Your task to perform on an android device: toggle airplane mode Image 0: 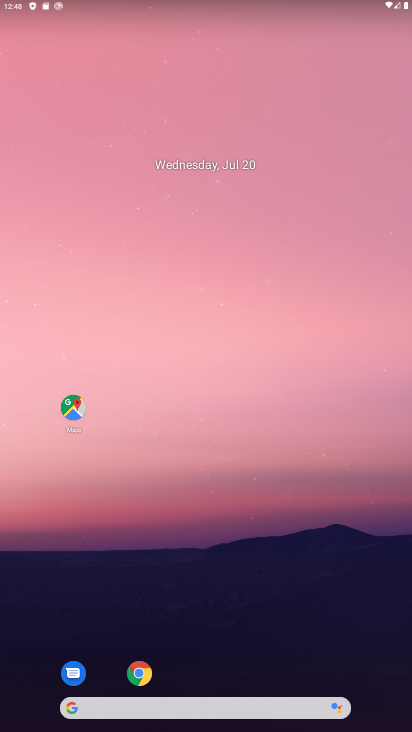
Step 0: drag from (180, 3) to (212, 553)
Your task to perform on an android device: toggle airplane mode Image 1: 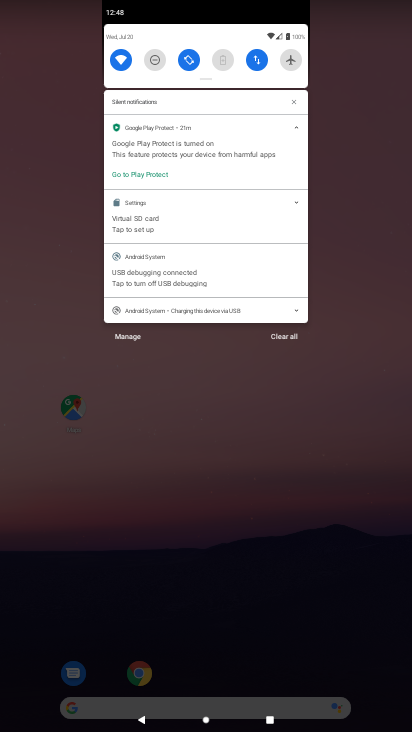
Step 1: click (301, 53)
Your task to perform on an android device: toggle airplane mode Image 2: 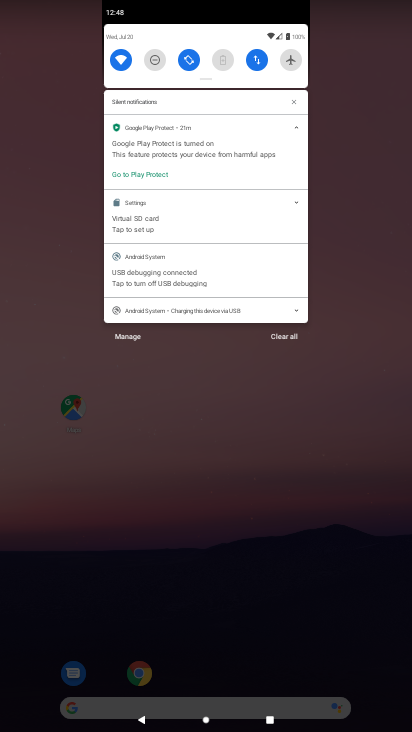
Step 2: click (301, 53)
Your task to perform on an android device: toggle airplane mode Image 3: 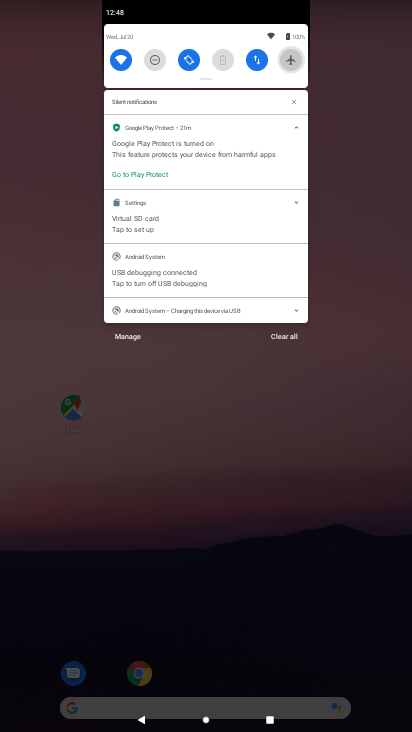
Step 3: click (301, 53)
Your task to perform on an android device: toggle airplane mode Image 4: 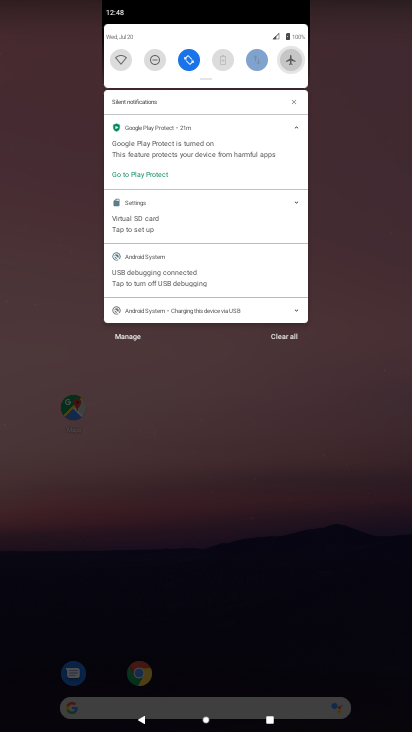
Step 4: click (298, 55)
Your task to perform on an android device: toggle airplane mode Image 5: 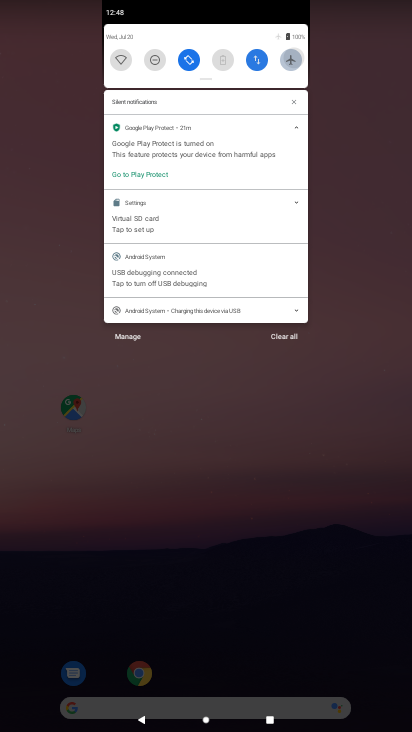
Step 5: click (298, 55)
Your task to perform on an android device: toggle airplane mode Image 6: 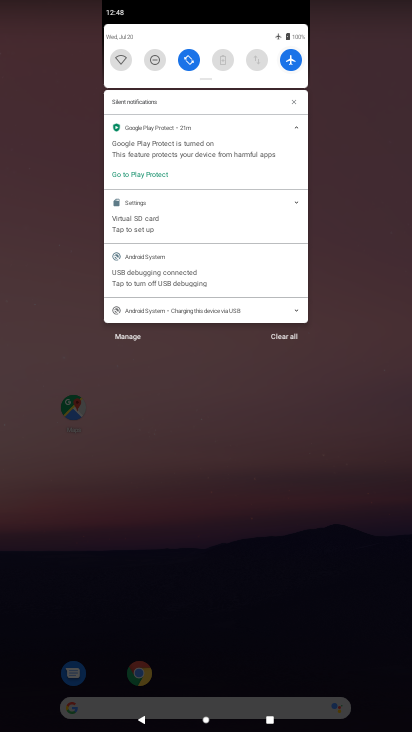
Step 6: click (298, 55)
Your task to perform on an android device: toggle airplane mode Image 7: 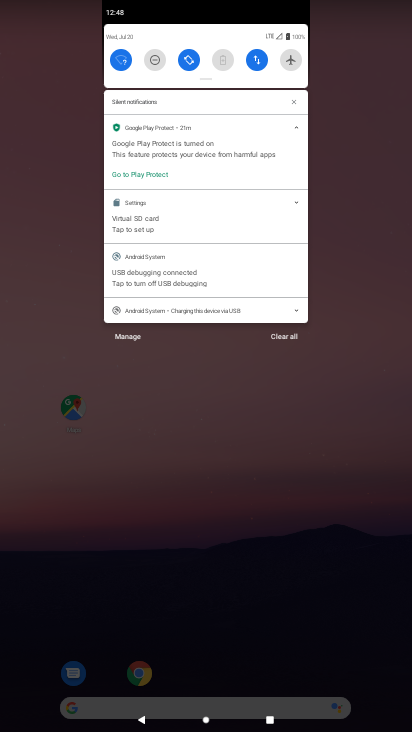
Step 7: task complete